Your task to perform on an android device: turn off notifications settings in the gmail app Image 0: 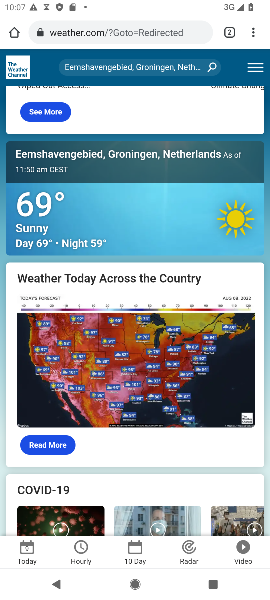
Step 0: press home button
Your task to perform on an android device: turn off notifications settings in the gmail app Image 1: 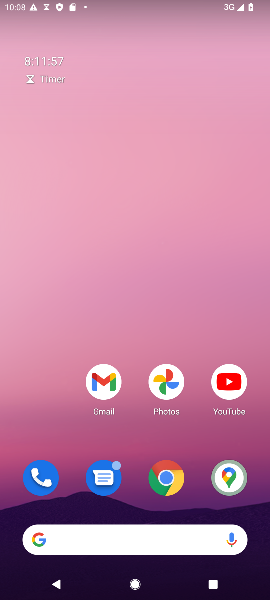
Step 1: drag from (202, 349) to (170, 3)
Your task to perform on an android device: turn off notifications settings in the gmail app Image 2: 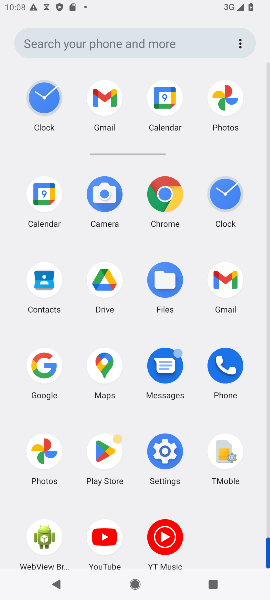
Step 2: click (96, 97)
Your task to perform on an android device: turn off notifications settings in the gmail app Image 3: 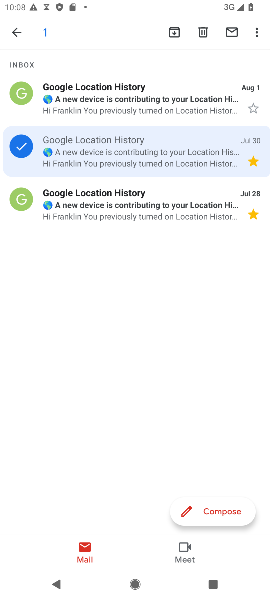
Step 3: click (12, 31)
Your task to perform on an android device: turn off notifications settings in the gmail app Image 4: 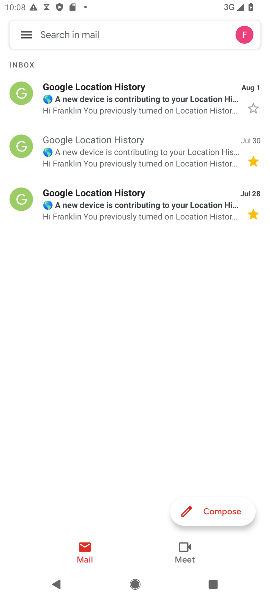
Step 4: click (19, 31)
Your task to perform on an android device: turn off notifications settings in the gmail app Image 5: 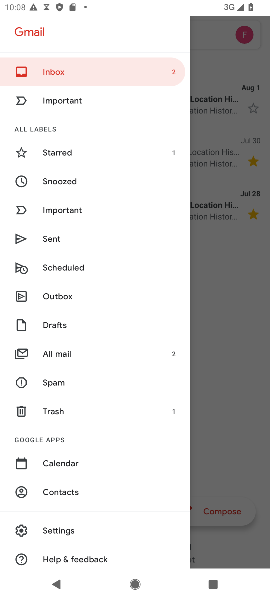
Step 5: click (96, 529)
Your task to perform on an android device: turn off notifications settings in the gmail app Image 6: 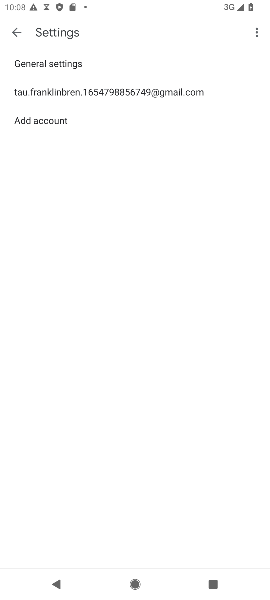
Step 6: click (113, 89)
Your task to perform on an android device: turn off notifications settings in the gmail app Image 7: 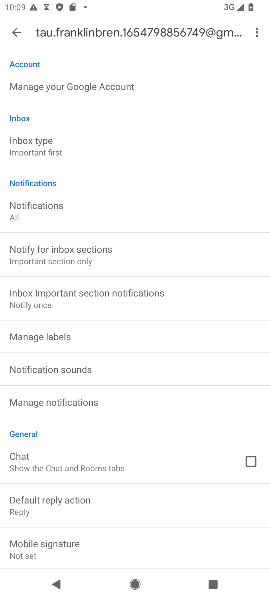
Step 7: click (135, 411)
Your task to perform on an android device: turn off notifications settings in the gmail app Image 8: 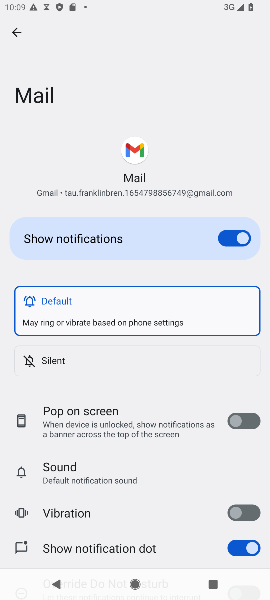
Step 8: drag from (175, 525) to (162, 207)
Your task to perform on an android device: turn off notifications settings in the gmail app Image 9: 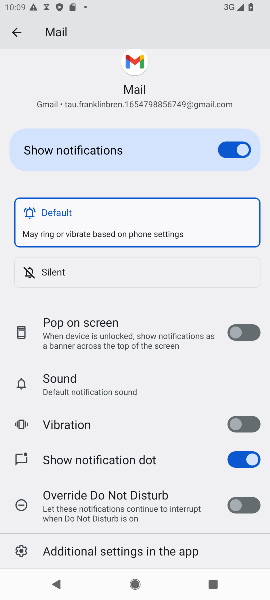
Step 9: click (237, 460)
Your task to perform on an android device: turn off notifications settings in the gmail app Image 10: 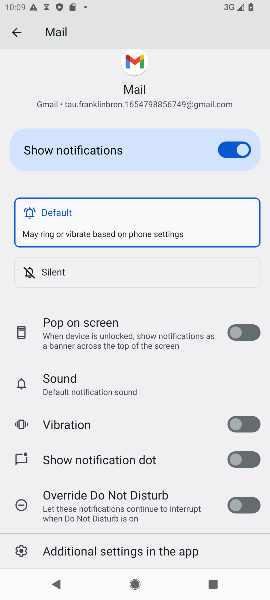
Step 10: task complete